Your task to perform on an android device: set the timer Image 0: 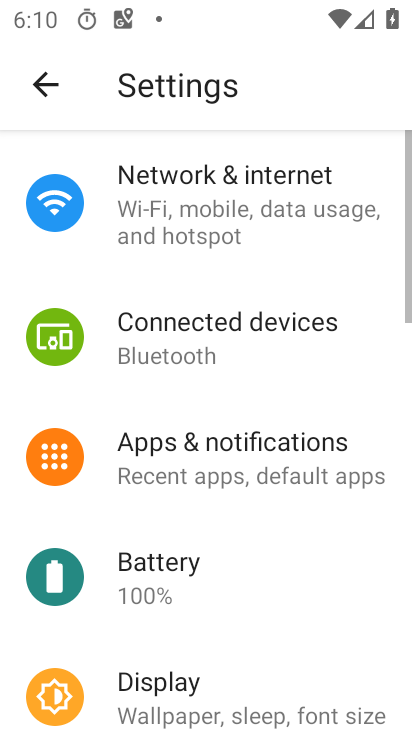
Step 0: press home button
Your task to perform on an android device: set the timer Image 1: 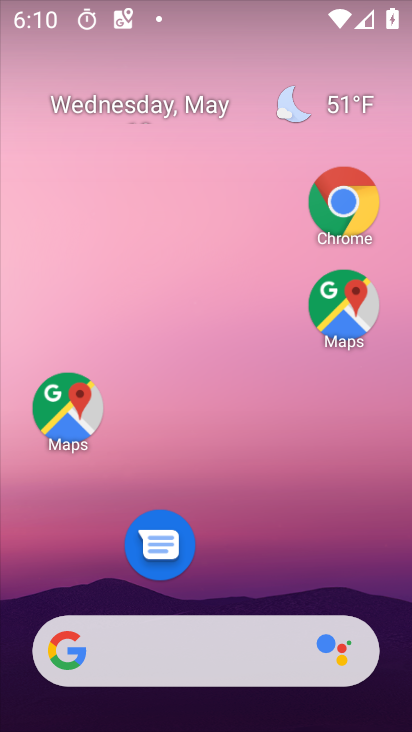
Step 1: drag from (315, 211) to (307, 136)
Your task to perform on an android device: set the timer Image 2: 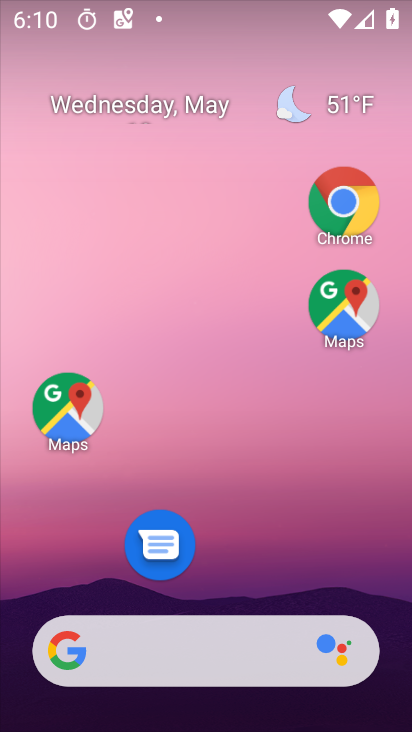
Step 2: drag from (250, 558) to (289, 2)
Your task to perform on an android device: set the timer Image 3: 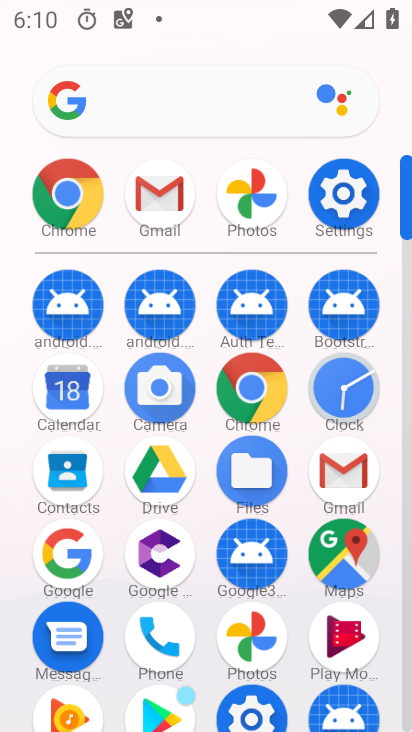
Step 3: click (349, 400)
Your task to perform on an android device: set the timer Image 4: 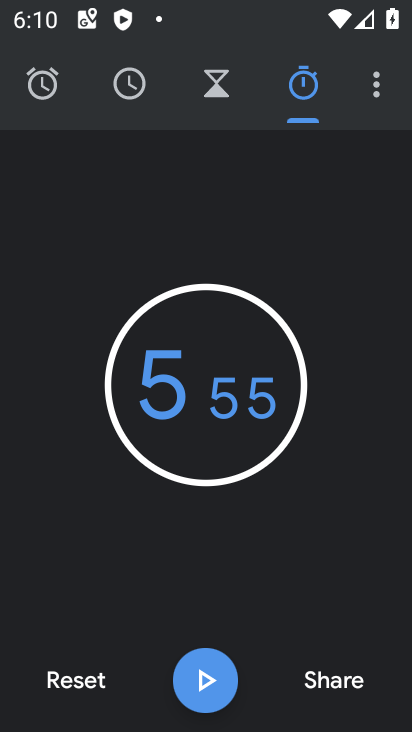
Step 4: click (216, 95)
Your task to perform on an android device: set the timer Image 5: 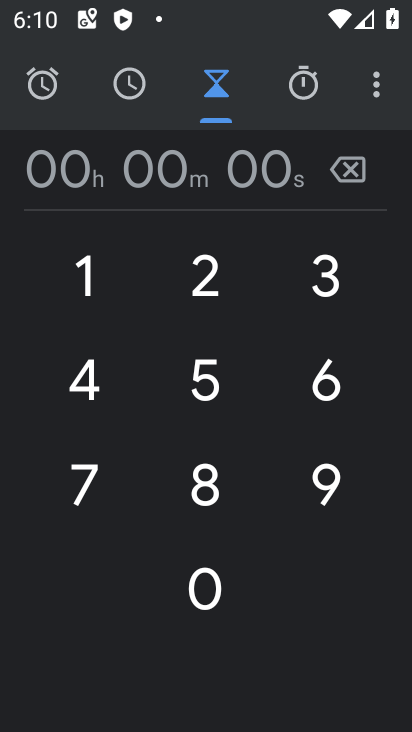
Step 5: click (93, 288)
Your task to perform on an android device: set the timer Image 6: 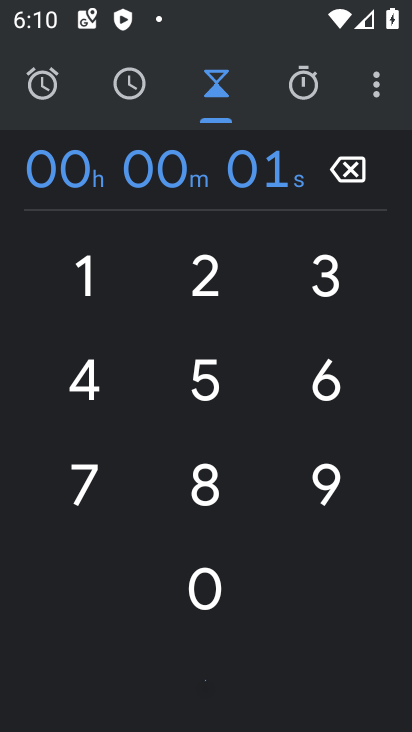
Step 6: click (215, 589)
Your task to perform on an android device: set the timer Image 7: 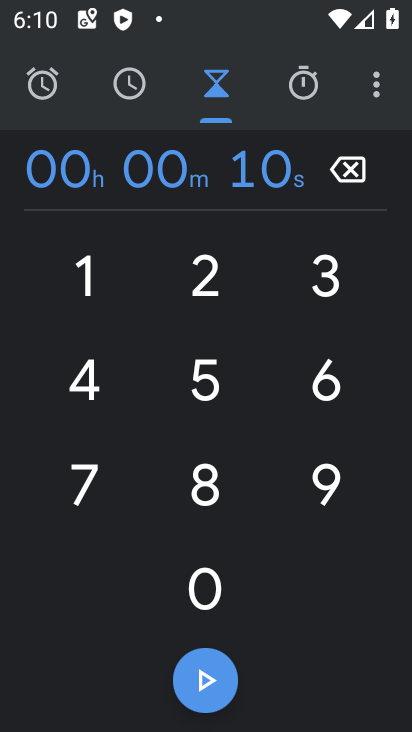
Step 7: click (83, 284)
Your task to perform on an android device: set the timer Image 8: 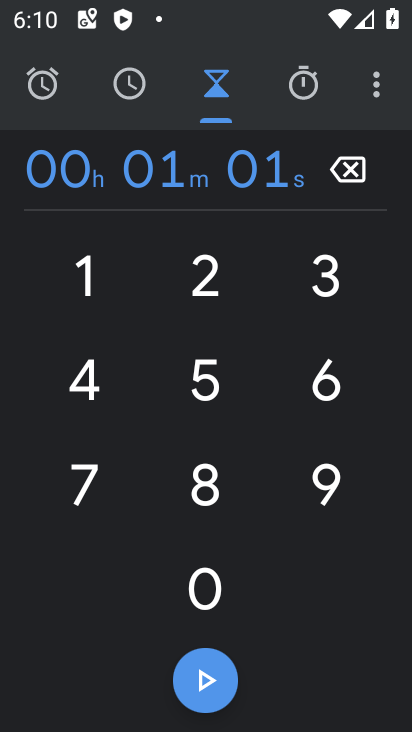
Step 8: click (205, 598)
Your task to perform on an android device: set the timer Image 9: 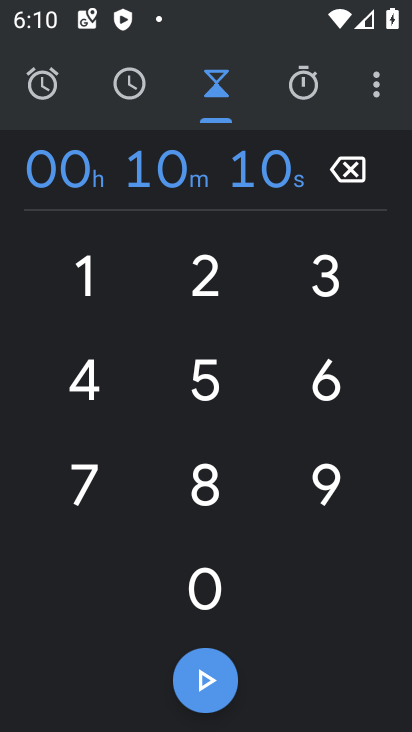
Step 9: click (204, 691)
Your task to perform on an android device: set the timer Image 10: 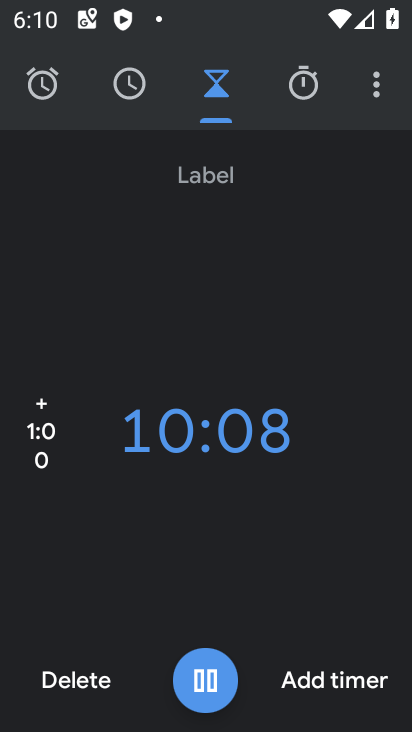
Step 10: click (342, 681)
Your task to perform on an android device: set the timer Image 11: 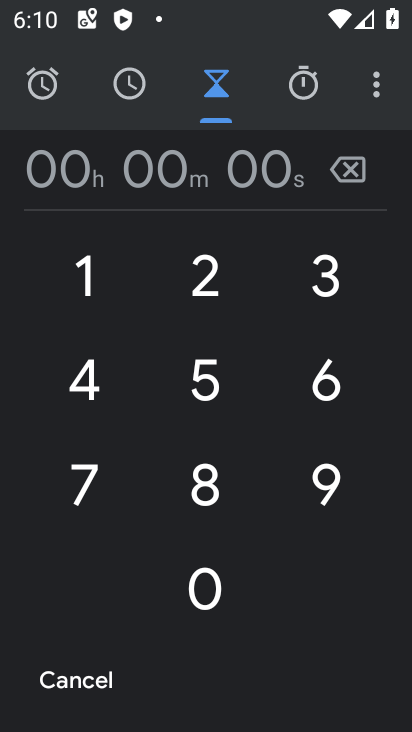
Step 11: task complete